Your task to perform on an android device: Open the stopwatch Image 0: 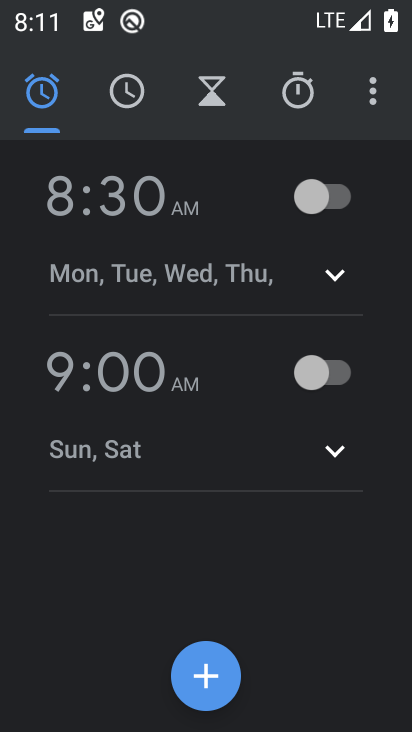
Step 0: press home button
Your task to perform on an android device: Open the stopwatch Image 1: 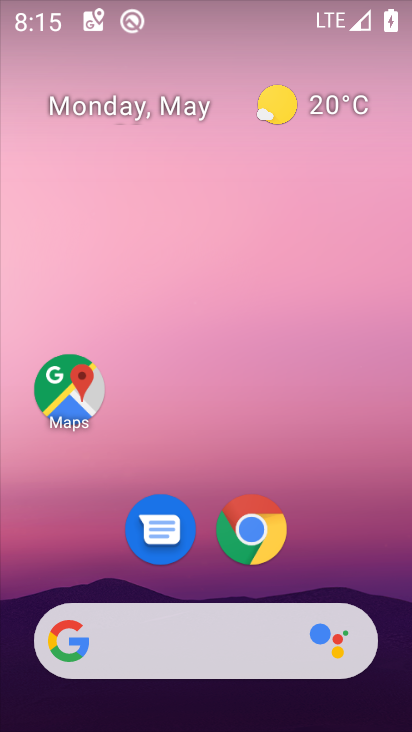
Step 1: drag from (39, 436) to (140, 152)
Your task to perform on an android device: Open the stopwatch Image 2: 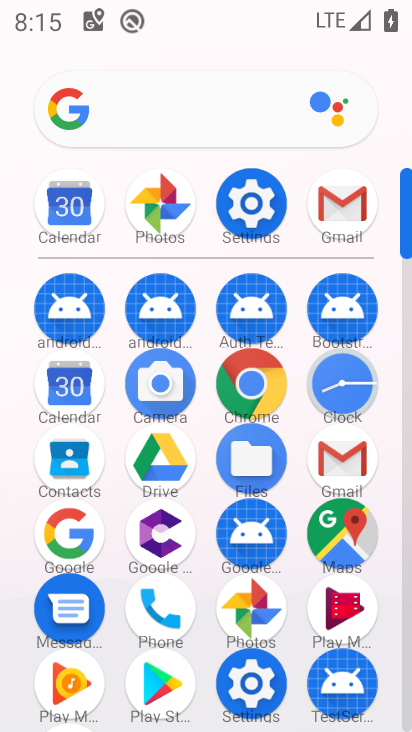
Step 2: click (348, 377)
Your task to perform on an android device: Open the stopwatch Image 3: 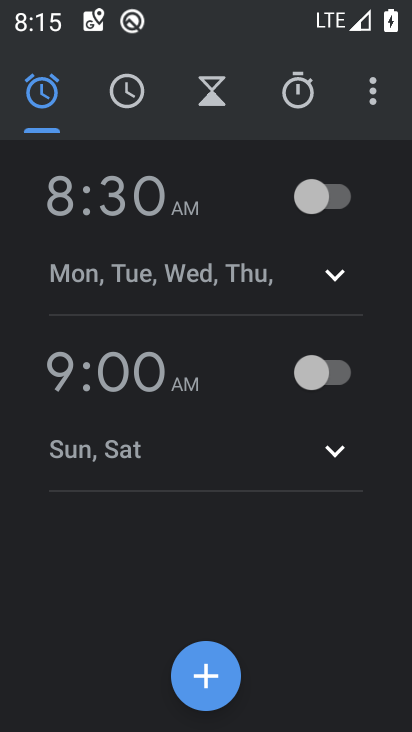
Step 3: click (300, 99)
Your task to perform on an android device: Open the stopwatch Image 4: 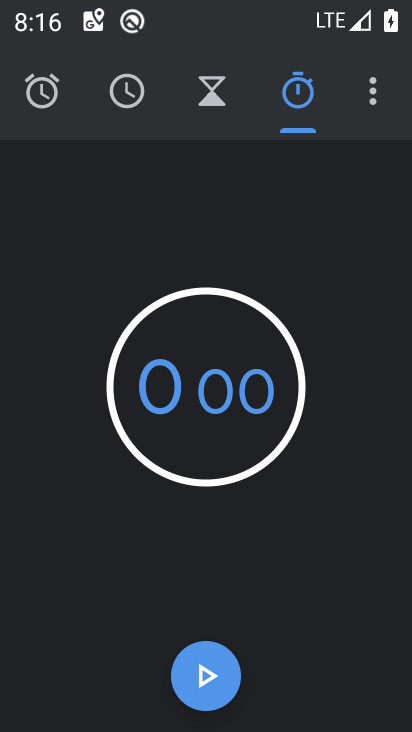
Step 4: task complete